Your task to perform on an android device: Search for the best selling books Image 0: 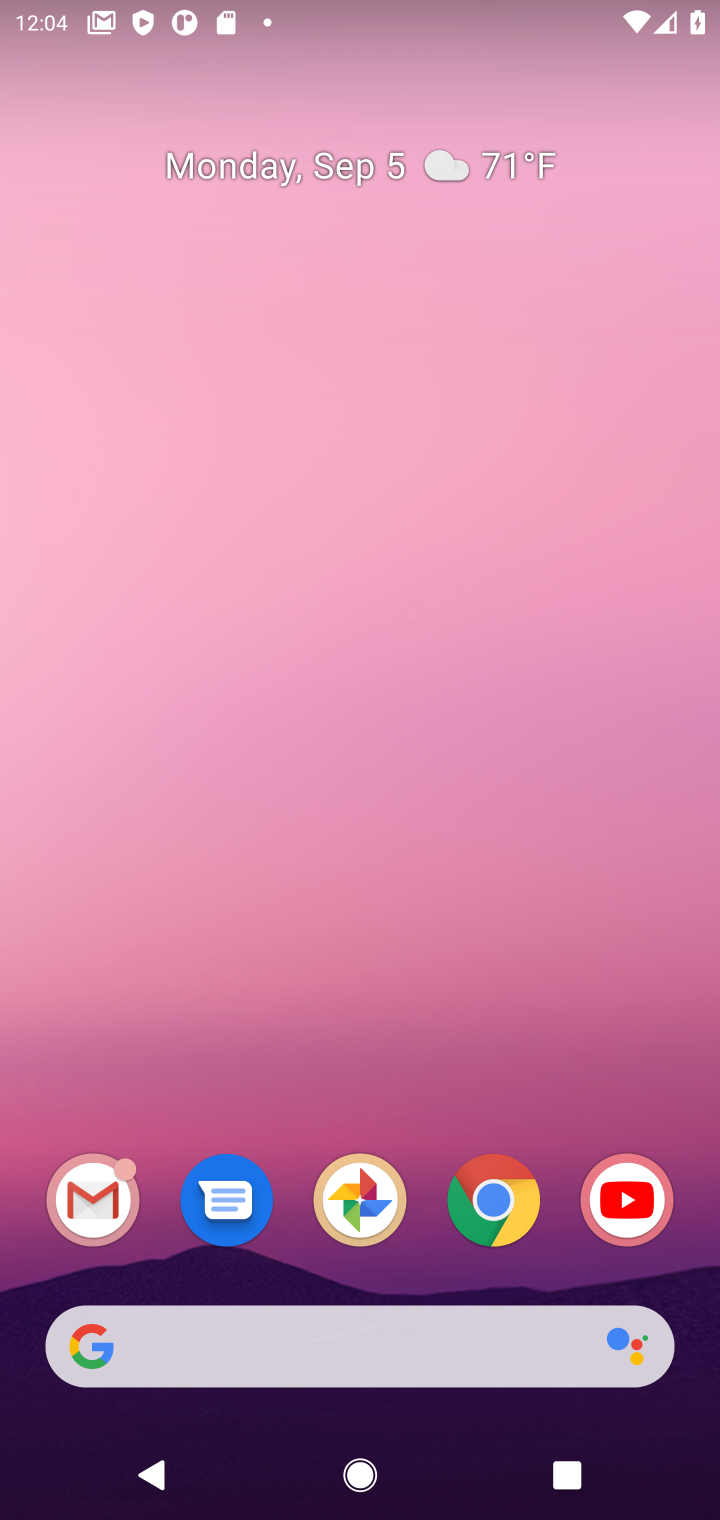
Step 0: drag from (493, 1322) to (383, 18)
Your task to perform on an android device: Search for the best selling books Image 1: 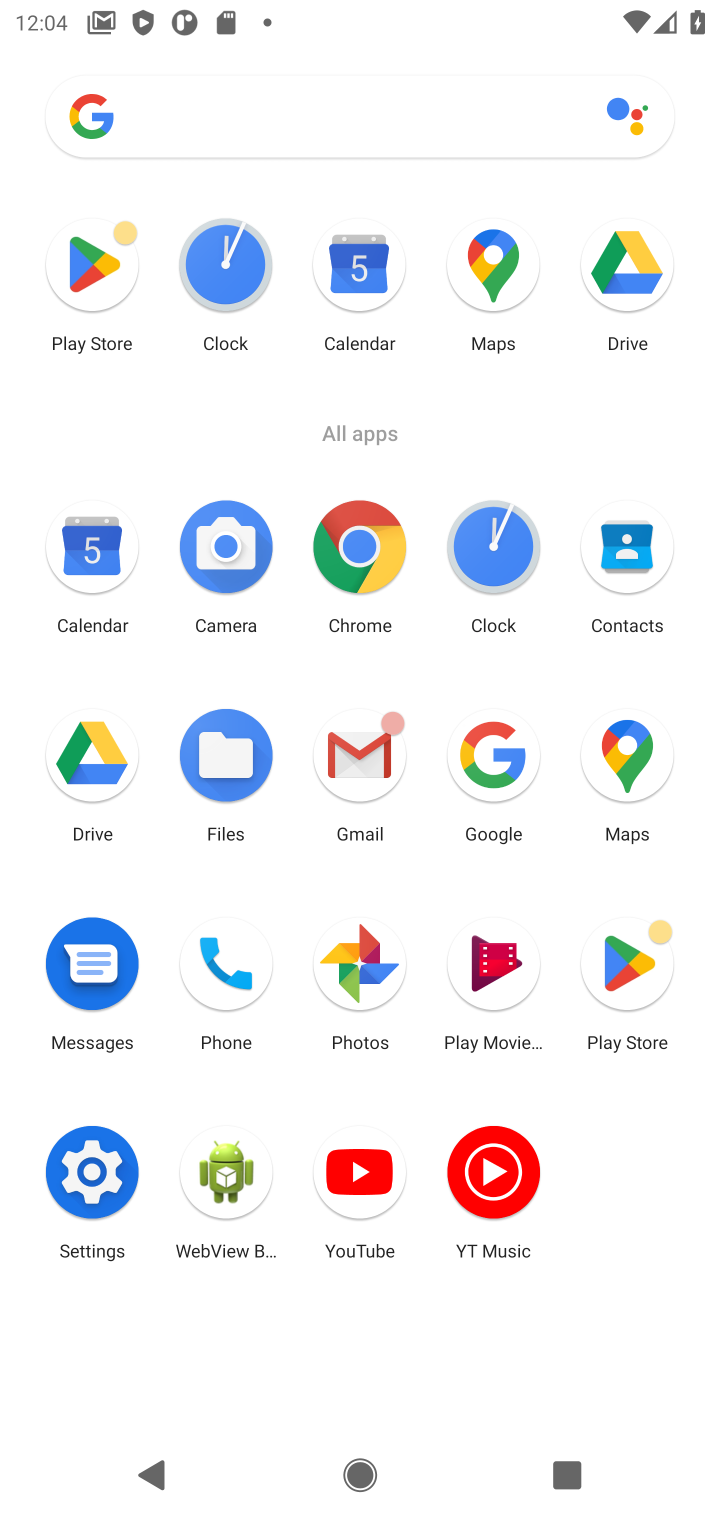
Step 1: click (376, 607)
Your task to perform on an android device: Search for the best selling books Image 2: 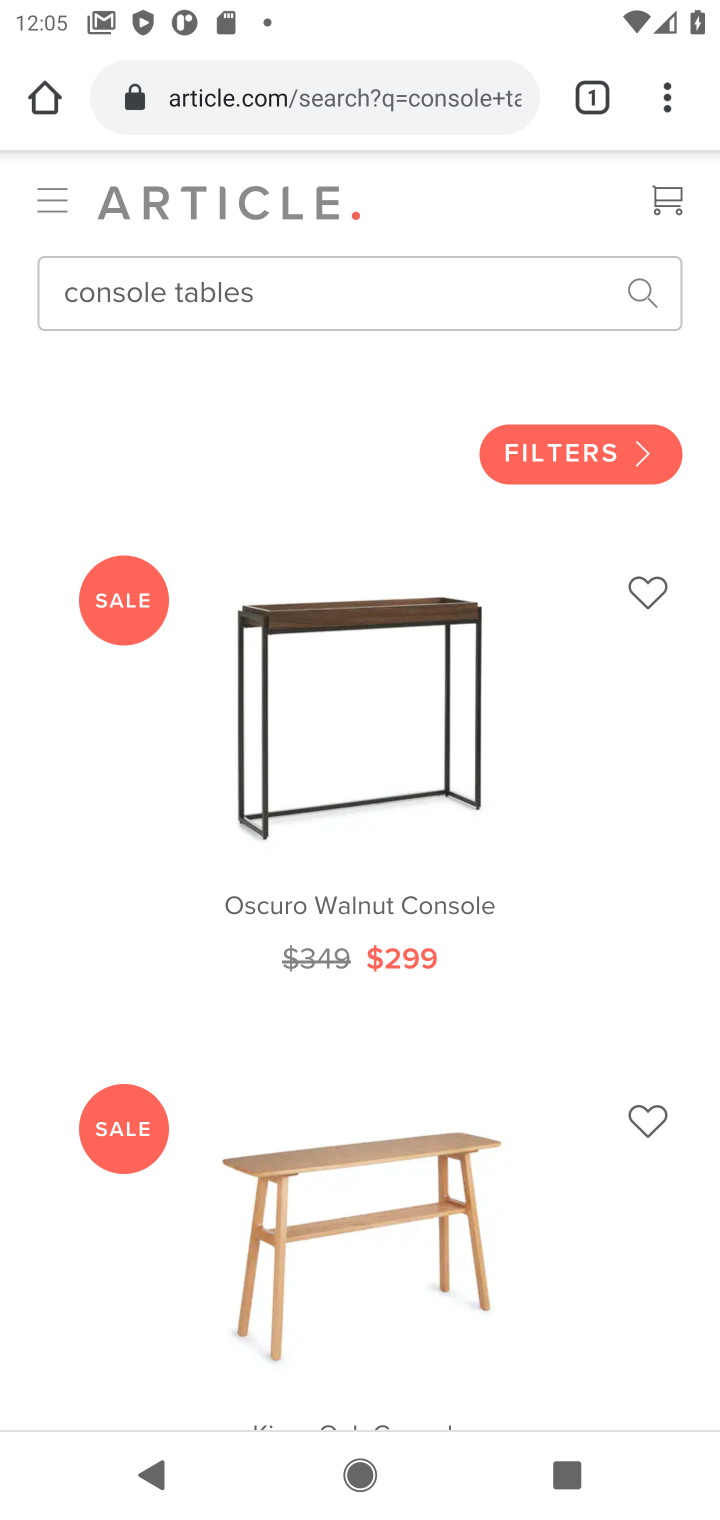
Step 2: click (421, 91)
Your task to perform on an android device: Search for the best selling books Image 3: 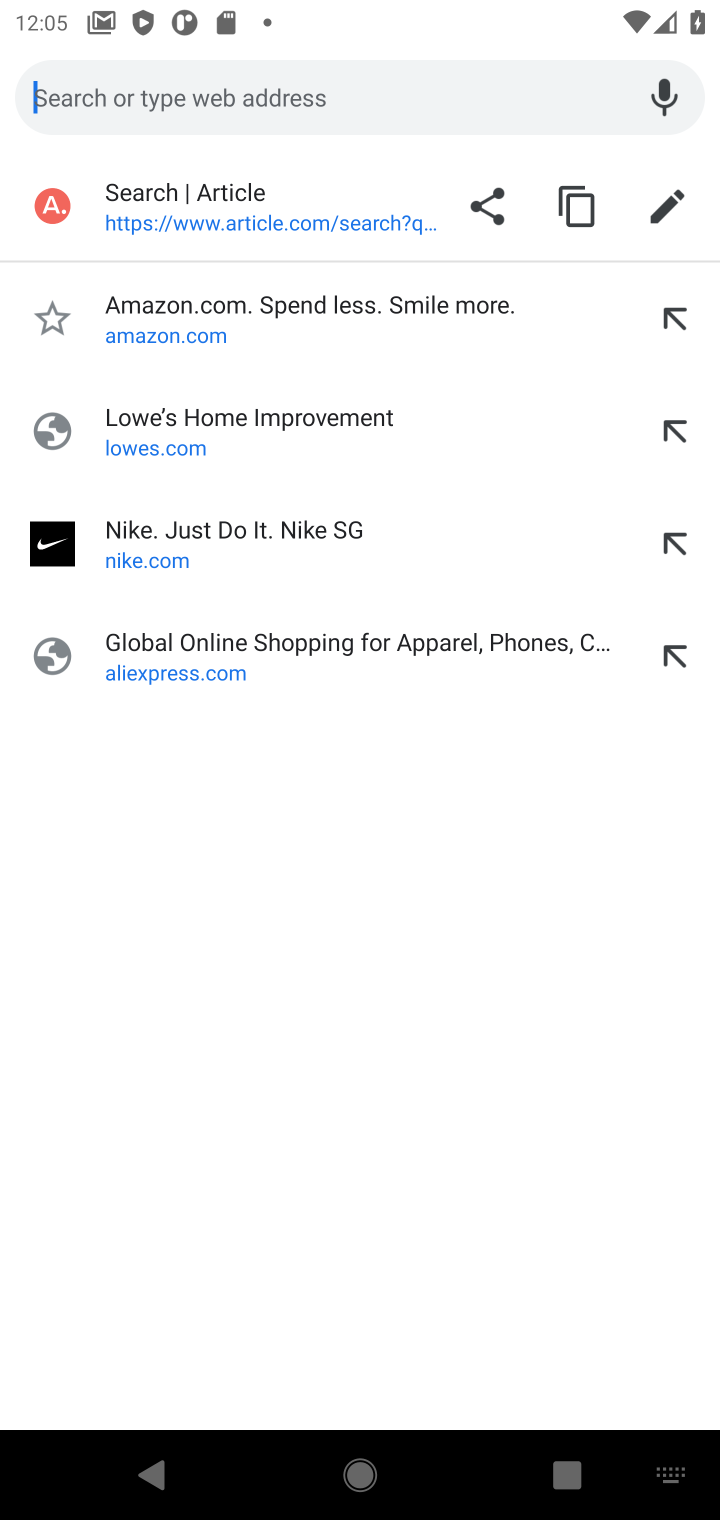
Step 3: type "best sellig"
Your task to perform on an android device: Search for the best selling books Image 4: 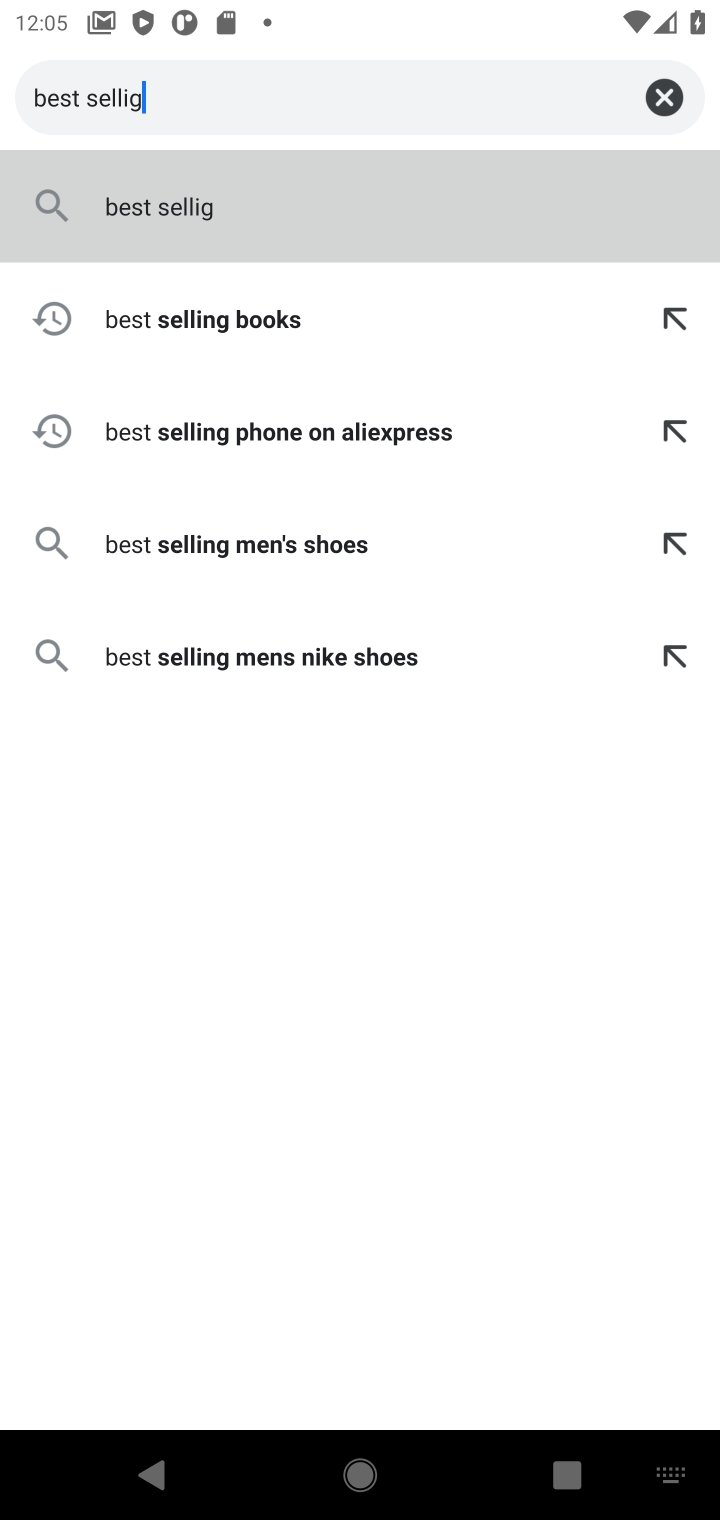
Step 4: click (284, 304)
Your task to perform on an android device: Search for the best selling books Image 5: 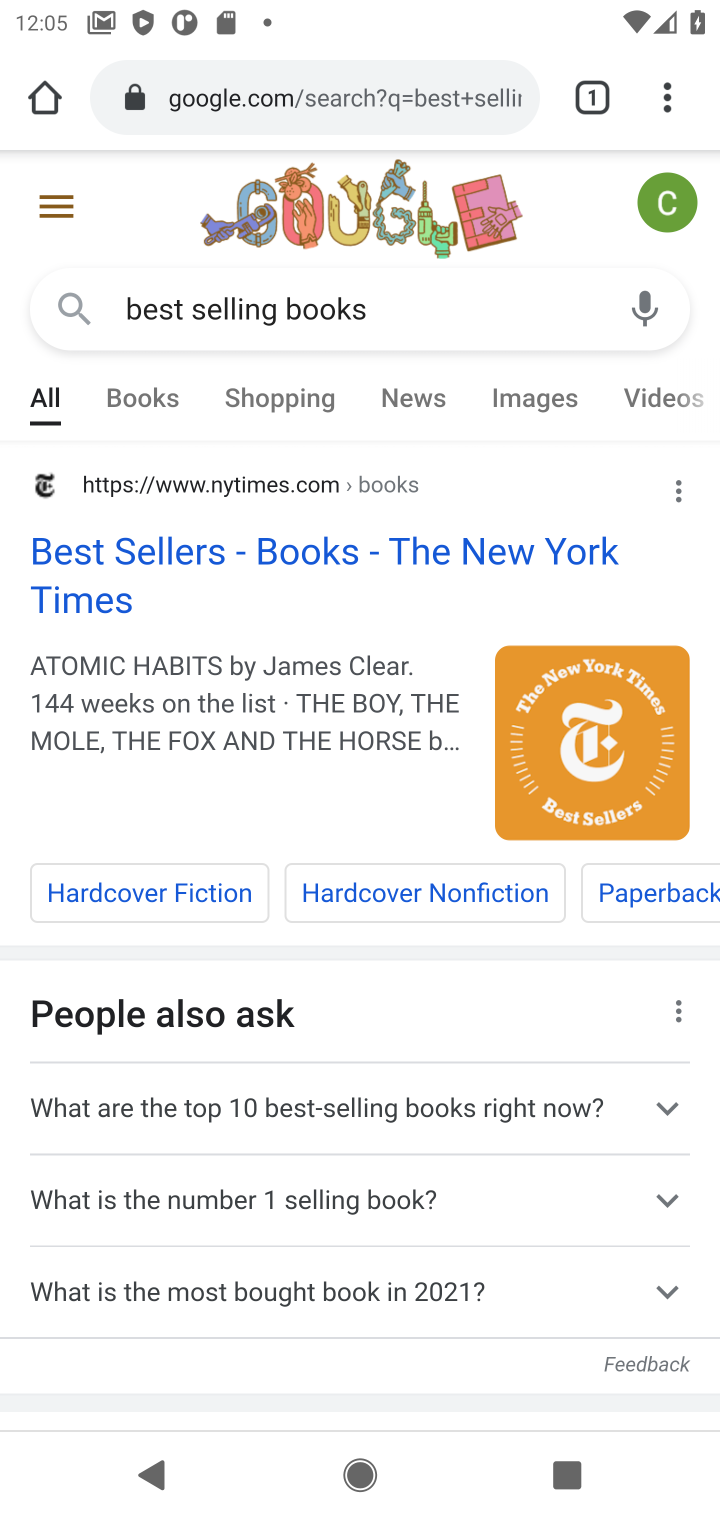
Step 5: task complete